Your task to perform on an android device: allow notifications from all sites in the chrome app Image 0: 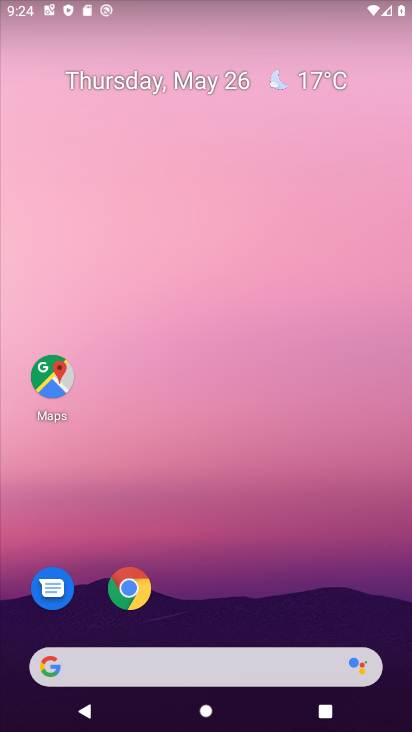
Step 0: click (132, 583)
Your task to perform on an android device: allow notifications from all sites in the chrome app Image 1: 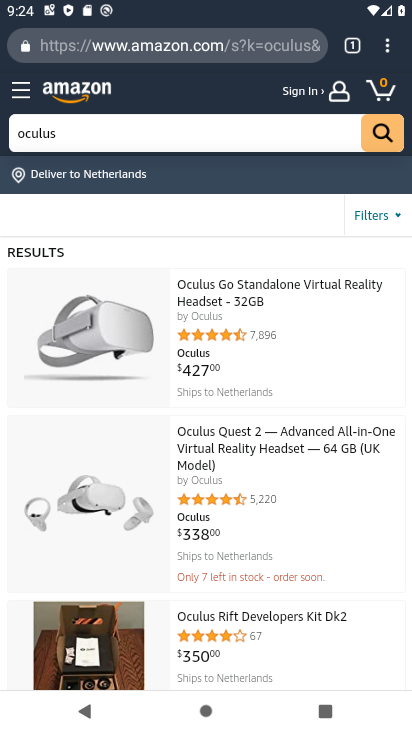
Step 1: click (388, 53)
Your task to perform on an android device: allow notifications from all sites in the chrome app Image 2: 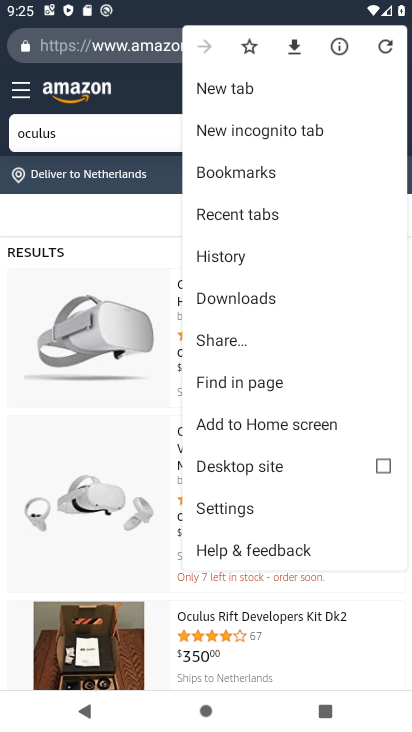
Step 2: click (236, 512)
Your task to perform on an android device: allow notifications from all sites in the chrome app Image 3: 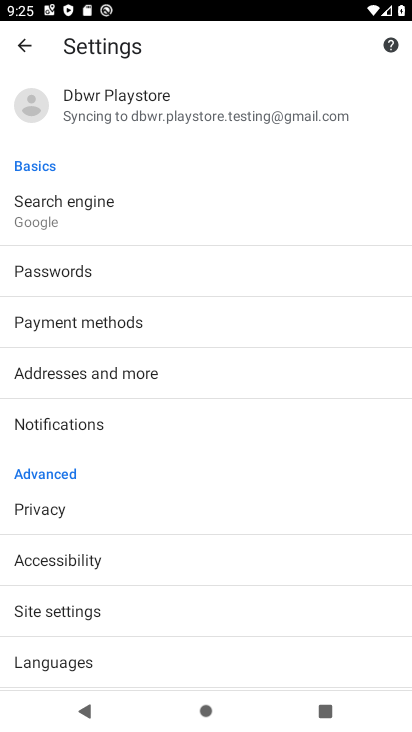
Step 3: click (73, 605)
Your task to perform on an android device: allow notifications from all sites in the chrome app Image 4: 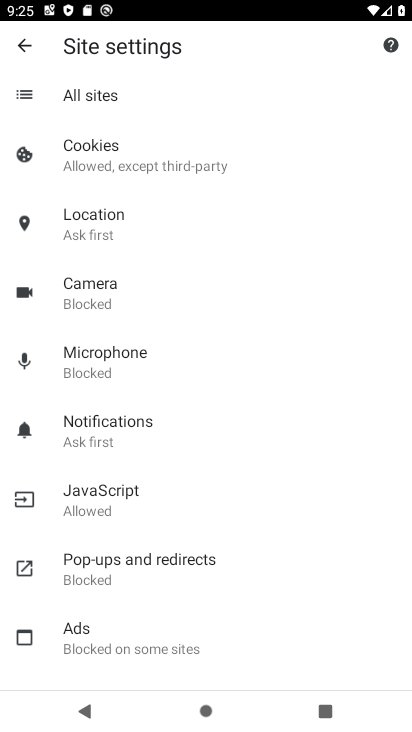
Step 4: click (103, 437)
Your task to perform on an android device: allow notifications from all sites in the chrome app Image 5: 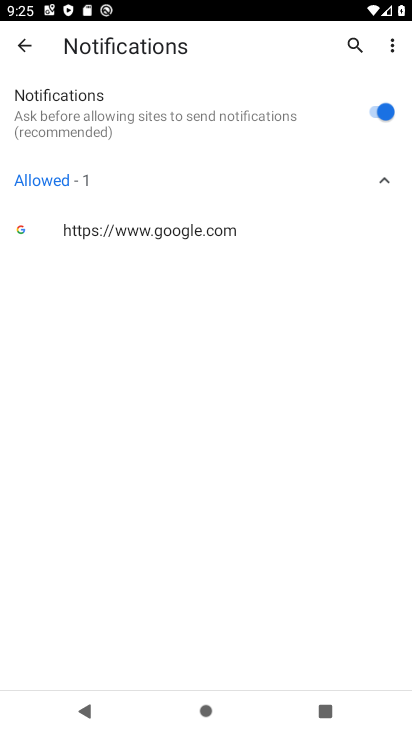
Step 5: task complete